Your task to perform on an android device: open app "Spotify: Music and Podcasts" (install if not already installed), go to login, and select forgot password Image 0: 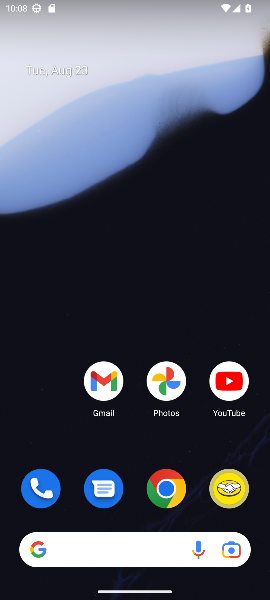
Step 0: click (118, 28)
Your task to perform on an android device: open app "Spotify: Music and Podcasts" (install if not already installed), go to login, and select forgot password Image 1: 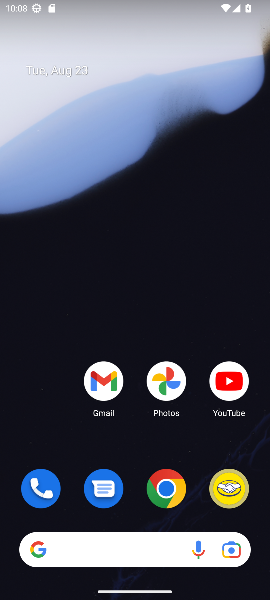
Step 1: drag from (122, 334) to (122, 174)
Your task to perform on an android device: open app "Spotify: Music and Podcasts" (install if not already installed), go to login, and select forgot password Image 2: 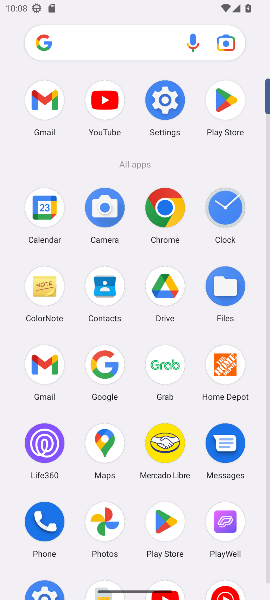
Step 2: click (219, 106)
Your task to perform on an android device: open app "Spotify: Music and Podcasts" (install if not already installed), go to login, and select forgot password Image 3: 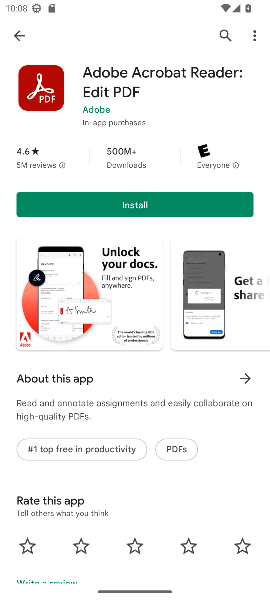
Step 3: click (21, 25)
Your task to perform on an android device: open app "Spotify: Music and Podcasts" (install if not already installed), go to login, and select forgot password Image 4: 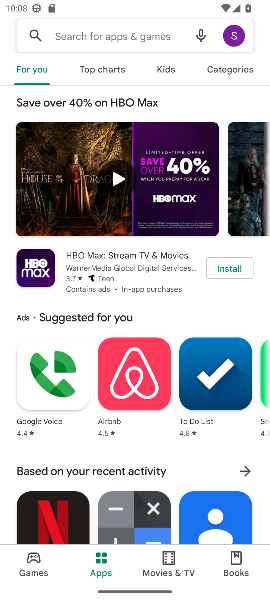
Step 4: click (87, 29)
Your task to perform on an android device: open app "Spotify: Music and Podcasts" (install if not already installed), go to login, and select forgot password Image 5: 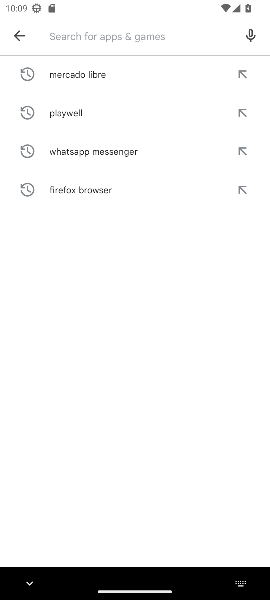
Step 5: type "Spotify"
Your task to perform on an android device: open app "Spotify: Music and Podcasts" (install if not already installed), go to login, and select forgot password Image 6: 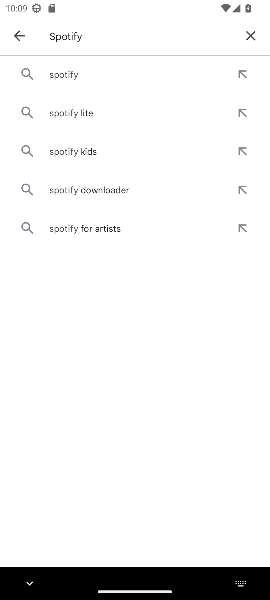
Step 6: click (52, 75)
Your task to perform on an android device: open app "Spotify: Music and Podcasts" (install if not already installed), go to login, and select forgot password Image 7: 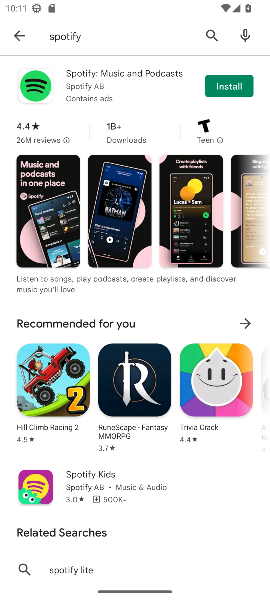
Step 7: click (215, 74)
Your task to perform on an android device: open app "Spotify: Music and Podcasts" (install if not already installed), go to login, and select forgot password Image 8: 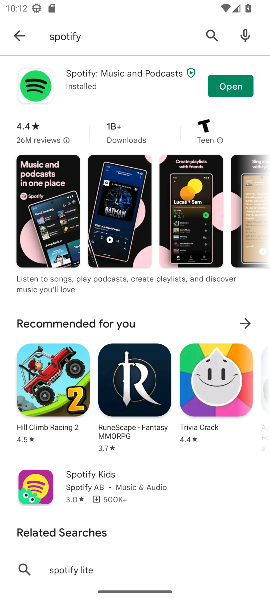
Step 8: click (229, 78)
Your task to perform on an android device: open app "Spotify: Music and Podcasts" (install if not already installed), go to login, and select forgot password Image 9: 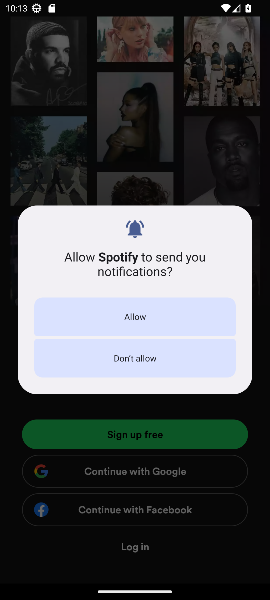
Step 9: press home button
Your task to perform on an android device: open app "Spotify: Music and Podcasts" (install if not already installed), go to login, and select forgot password Image 10: 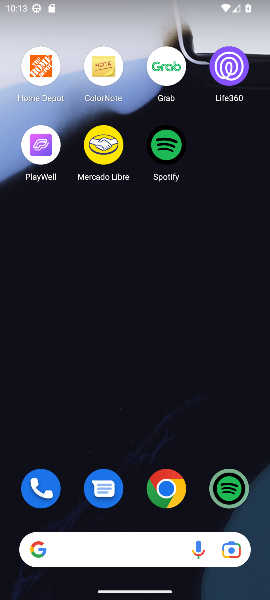
Step 10: drag from (149, 182) to (156, 105)
Your task to perform on an android device: open app "Spotify: Music and Podcasts" (install if not already installed), go to login, and select forgot password Image 11: 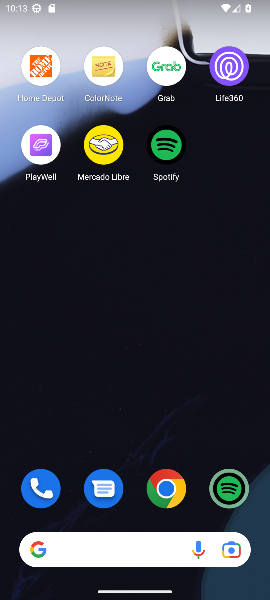
Step 11: drag from (124, 499) to (144, 2)
Your task to perform on an android device: open app "Spotify: Music and Podcasts" (install if not already installed), go to login, and select forgot password Image 12: 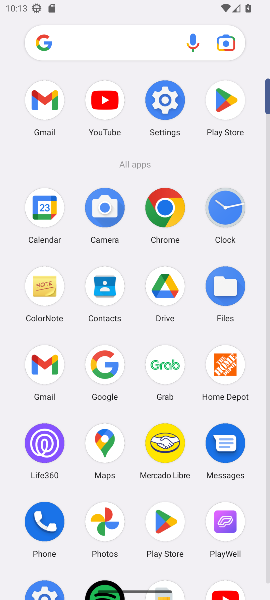
Step 12: click (222, 103)
Your task to perform on an android device: open app "Spotify: Music and Podcasts" (install if not already installed), go to login, and select forgot password Image 13: 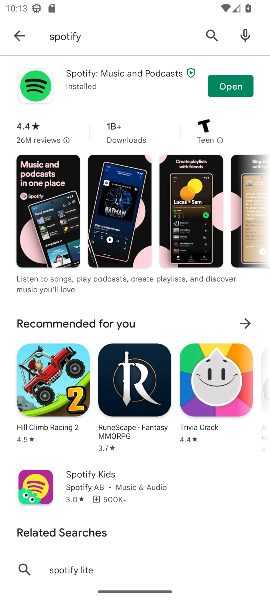
Step 13: click (17, 31)
Your task to perform on an android device: open app "Spotify: Music and Podcasts" (install if not already installed), go to login, and select forgot password Image 14: 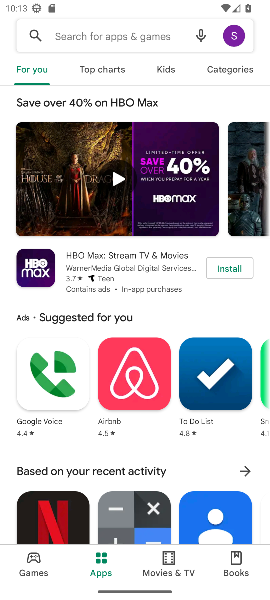
Step 14: click (87, 31)
Your task to perform on an android device: open app "Spotify: Music and Podcasts" (install if not already installed), go to login, and select forgot password Image 15: 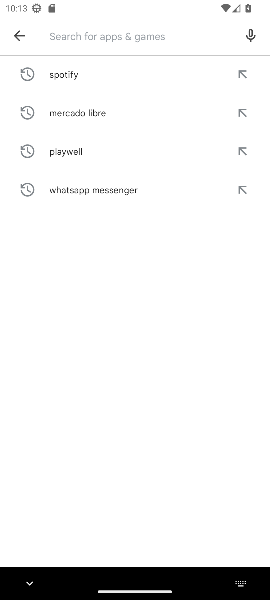
Step 15: type "Spotify"
Your task to perform on an android device: open app "Spotify: Music and Podcasts" (install if not already installed), go to login, and select forgot password Image 16: 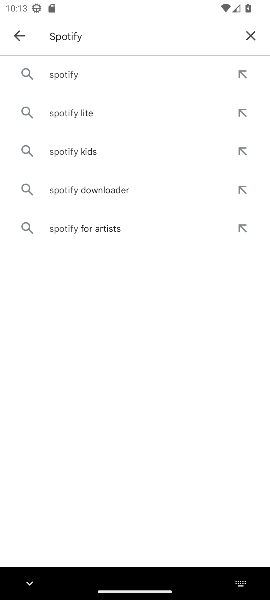
Step 16: click (59, 77)
Your task to perform on an android device: open app "Spotify: Music and Podcasts" (install if not already installed), go to login, and select forgot password Image 17: 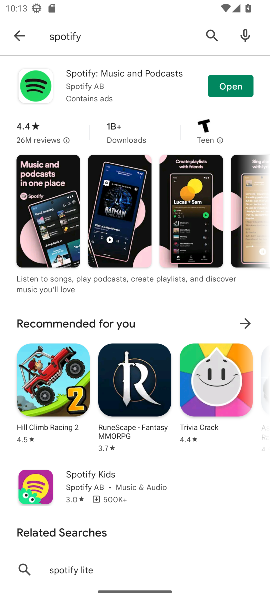
Step 17: click (140, 93)
Your task to perform on an android device: open app "Spotify: Music and Podcasts" (install if not already installed), go to login, and select forgot password Image 18: 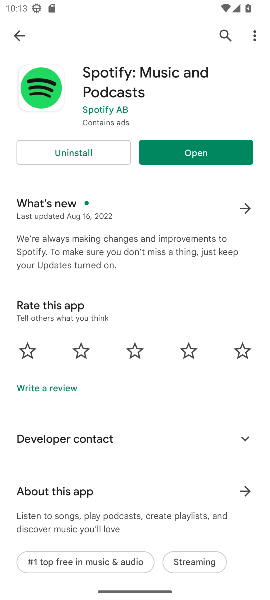
Step 18: click (160, 142)
Your task to perform on an android device: open app "Spotify: Music and Podcasts" (install if not already installed), go to login, and select forgot password Image 19: 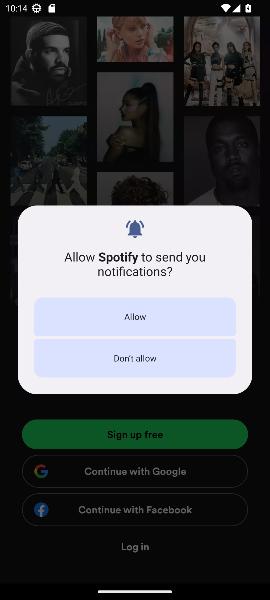
Step 19: click (131, 313)
Your task to perform on an android device: open app "Spotify: Music and Podcasts" (install if not already installed), go to login, and select forgot password Image 20: 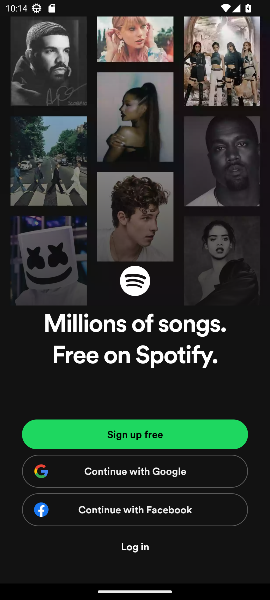
Step 20: click (141, 545)
Your task to perform on an android device: open app "Spotify: Music and Podcasts" (install if not already installed), go to login, and select forgot password Image 21: 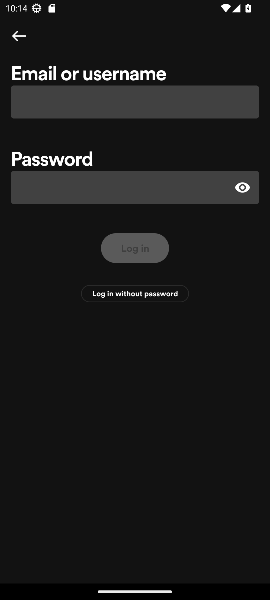
Step 21: click (138, 296)
Your task to perform on an android device: open app "Spotify: Music and Podcasts" (install if not already installed), go to login, and select forgot password Image 22: 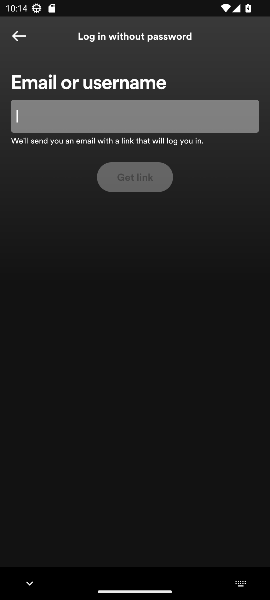
Step 22: click (177, 34)
Your task to perform on an android device: open app "Spotify: Music and Podcasts" (install if not already installed), go to login, and select forgot password Image 23: 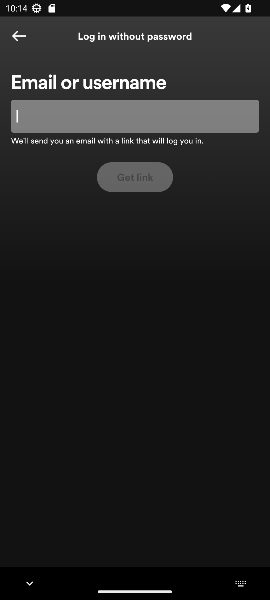
Step 23: task complete